Your task to perform on an android device: Open wifi settings Image 0: 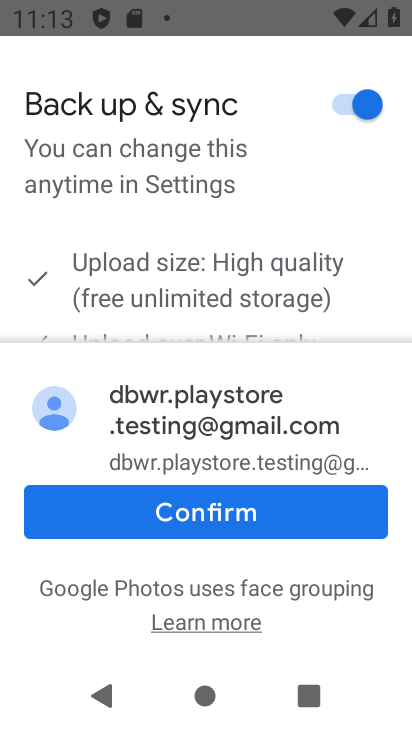
Step 0: press home button
Your task to perform on an android device: Open wifi settings Image 1: 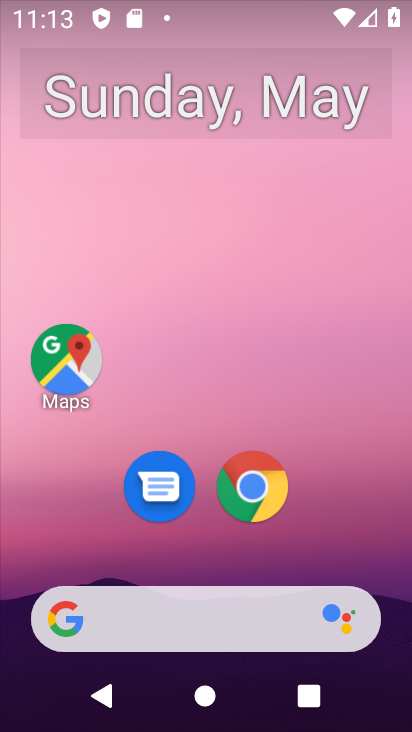
Step 1: drag from (296, 466) to (334, 24)
Your task to perform on an android device: Open wifi settings Image 2: 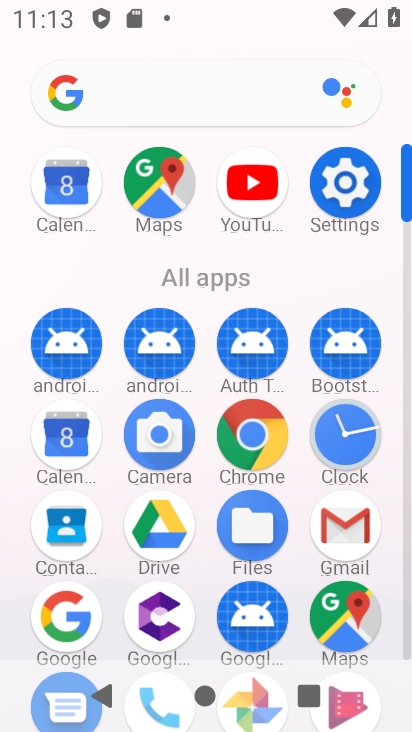
Step 2: drag from (345, 204) to (91, 203)
Your task to perform on an android device: Open wifi settings Image 3: 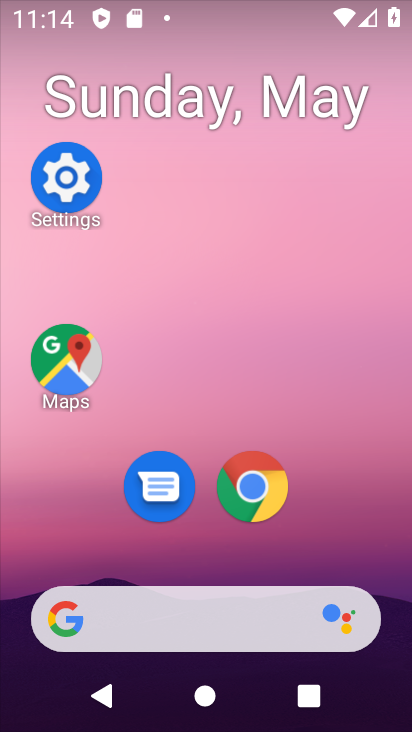
Step 3: click (76, 170)
Your task to perform on an android device: Open wifi settings Image 4: 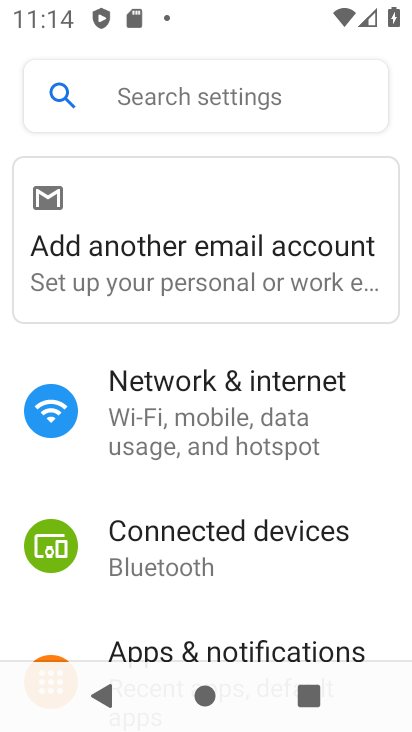
Step 4: click (296, 386)
Your task to perform on an android device: Open wifi settings Image 5: 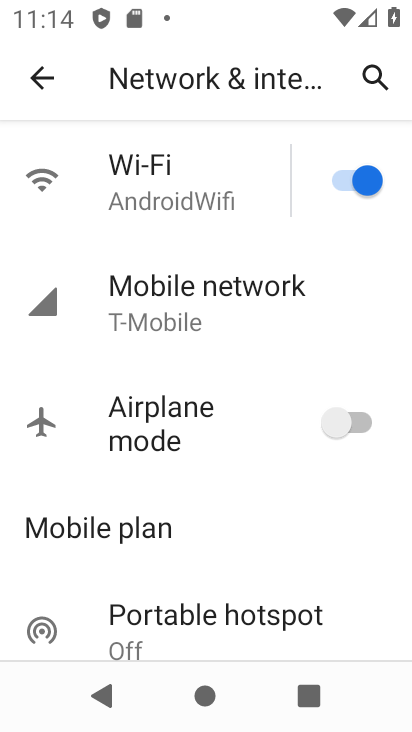
Step 5: click (188, 202)
Your task to perform on an android device: Open wifi settings Image 6: 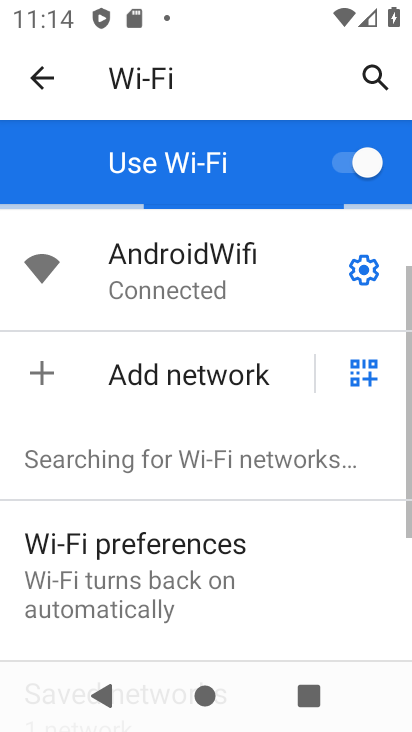
Step 6: click (376, 263)
Your task to perform on an android device: Open wifi settings Image 7: 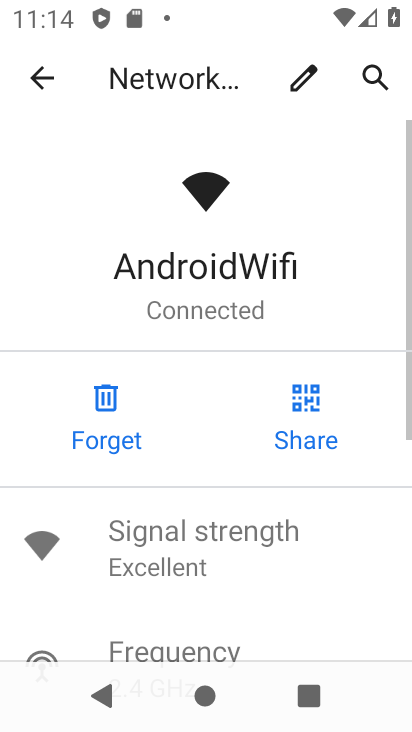
Step 7: task complete